Your task to perform on an android device: change the clock display to analog Image 0: 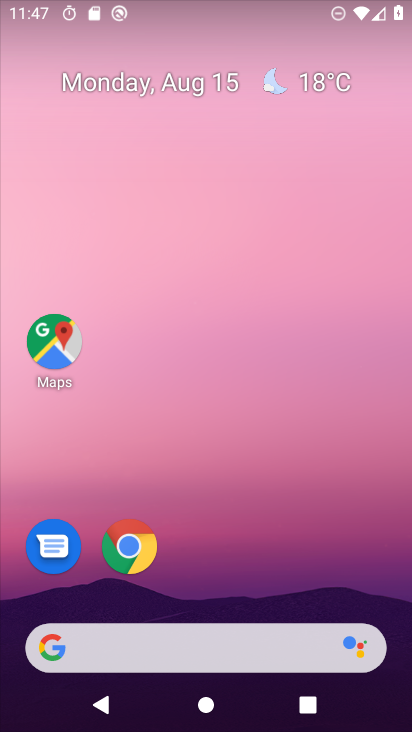
Step 0: drag from (220, 612) to (278, 132)
Your task to perform on an android device: change the clock display to analog Image 1: 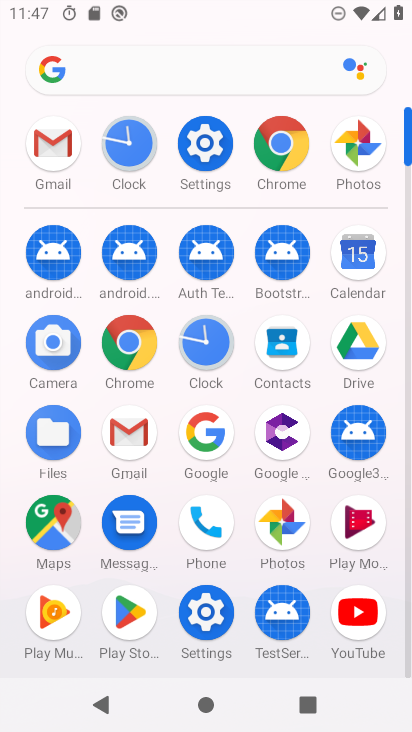
Step 1: click (212, 344)
Your task to perform on an android device: change the clock display to analog Image 2: 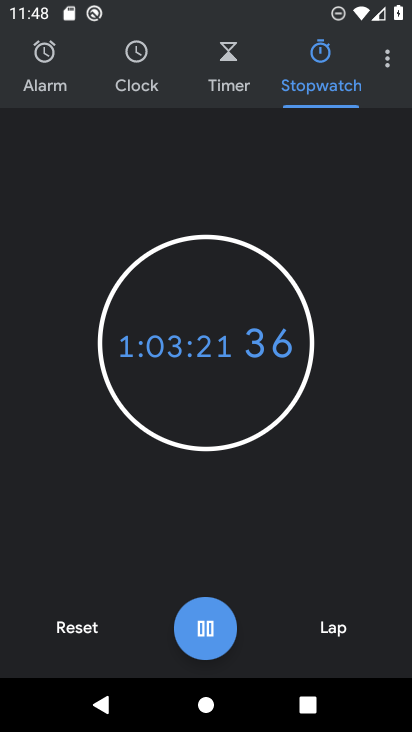
Step 2: click (387, 62)
Your task to perform on an android device: change the clock display to analog Image 3: 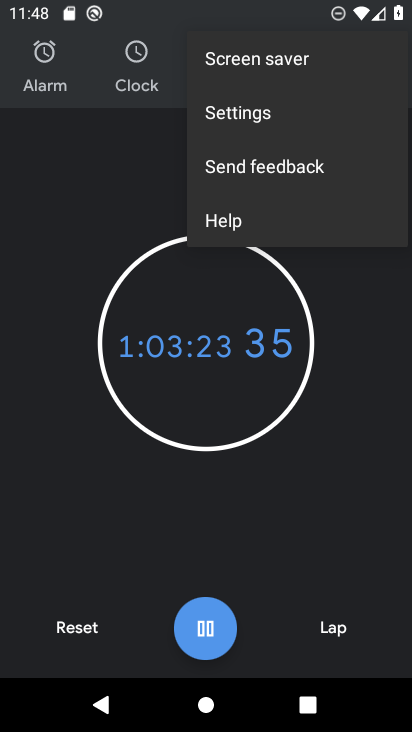
Step 3: click (242, 112)
Your task to perform on an android device: change the clock display to analog Image 4: 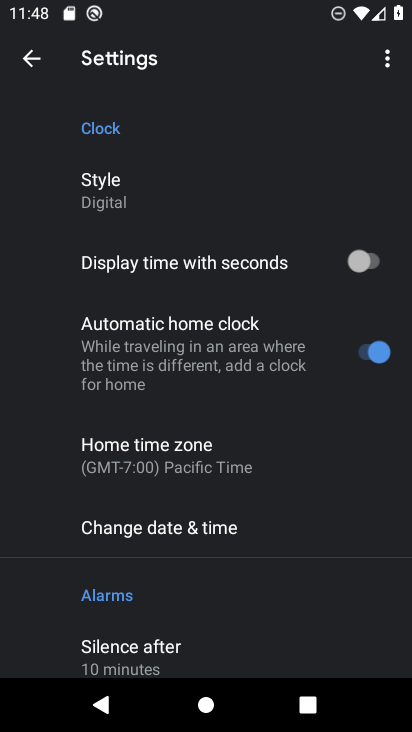
Step 4: click (100, 192)
Your task to perform on an android device: change the clock display to analog Image 5: 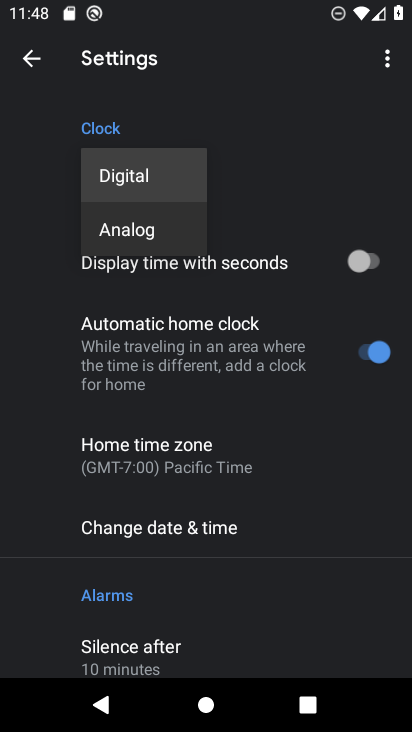
Step 5: click (143, 238)
Your task to perform on an android device: change the clock display to analog Image 6: 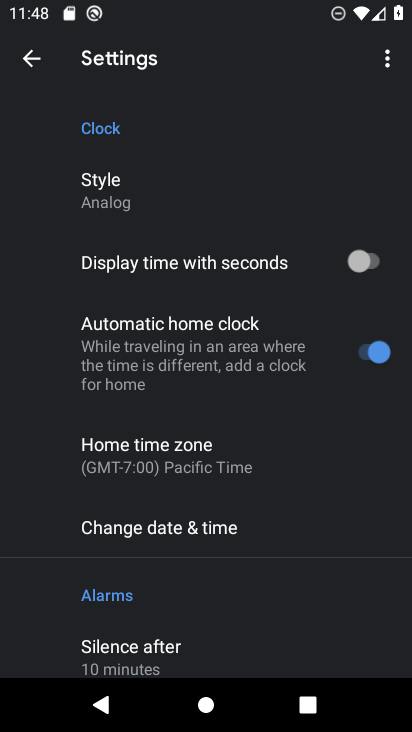
Step 6: task complete